Your task to perform on an android device: Add "apple airpods" to the cart on bestbuy Image 0: 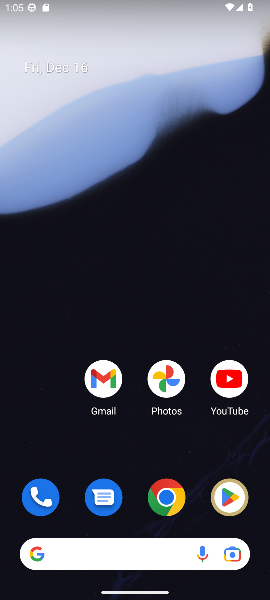
Step 0: task complete